Your task to perform on an android device: Open battery settings Image 0: 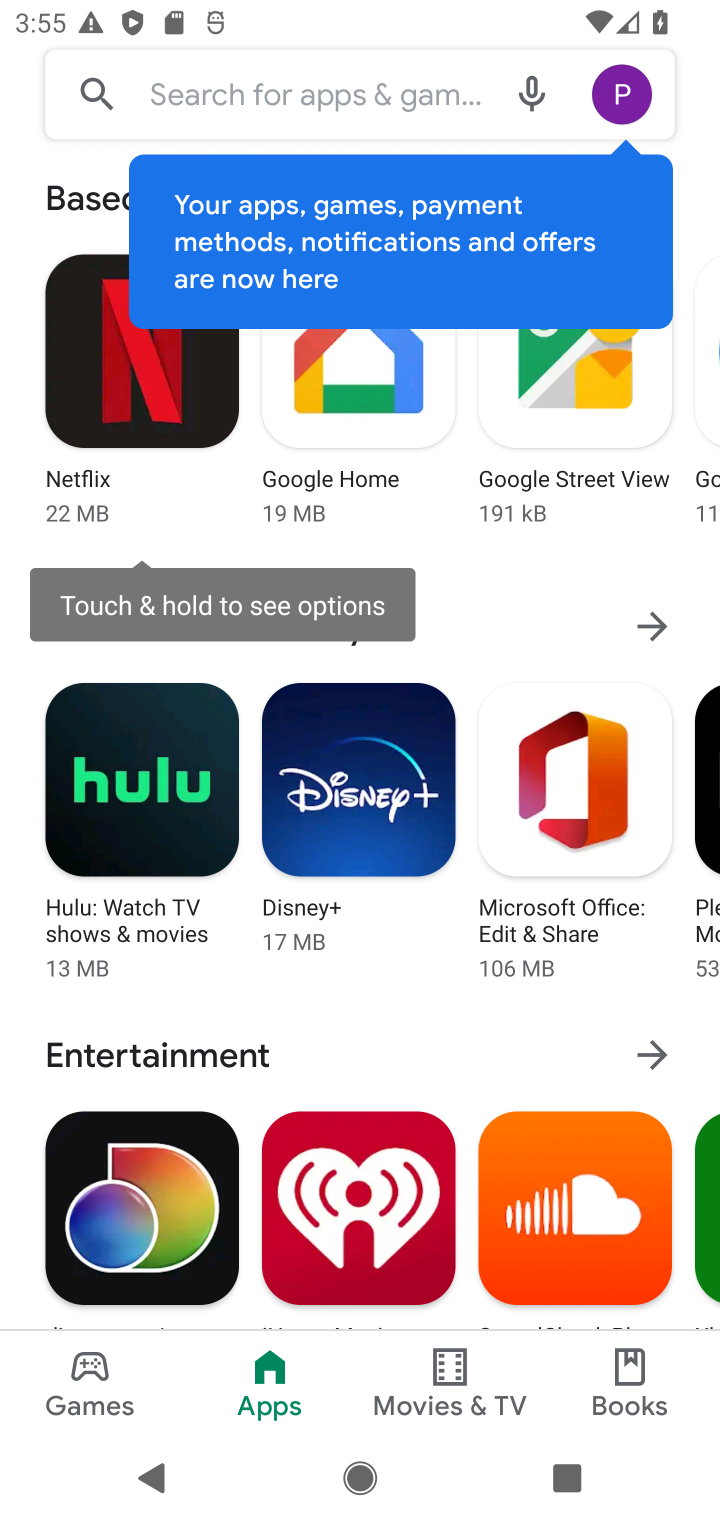
Step 0: press back button
Your task to perform on an android device: Open battery settings Image 1: 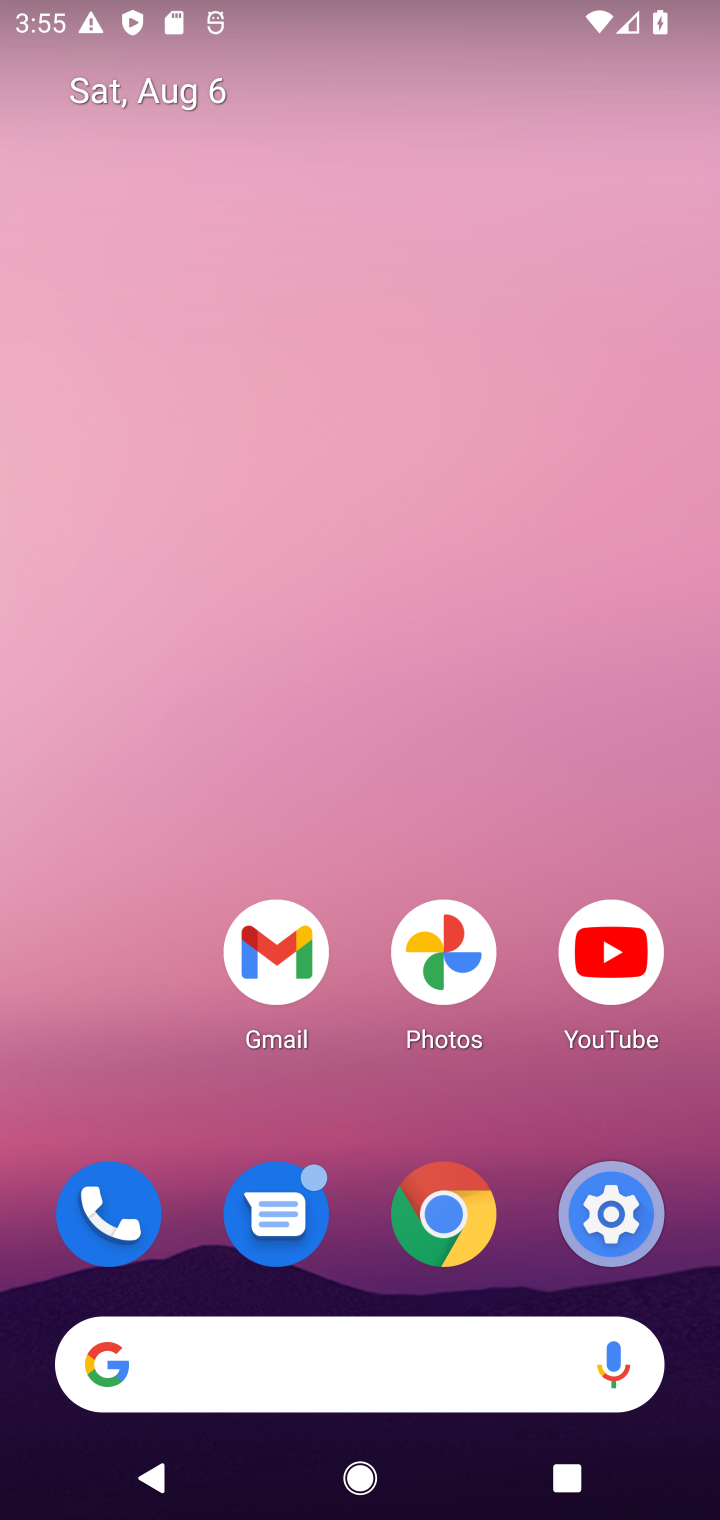
Step 1: click (612, 1226)
Your task to perform on an android device: Open battery settings Image 2: 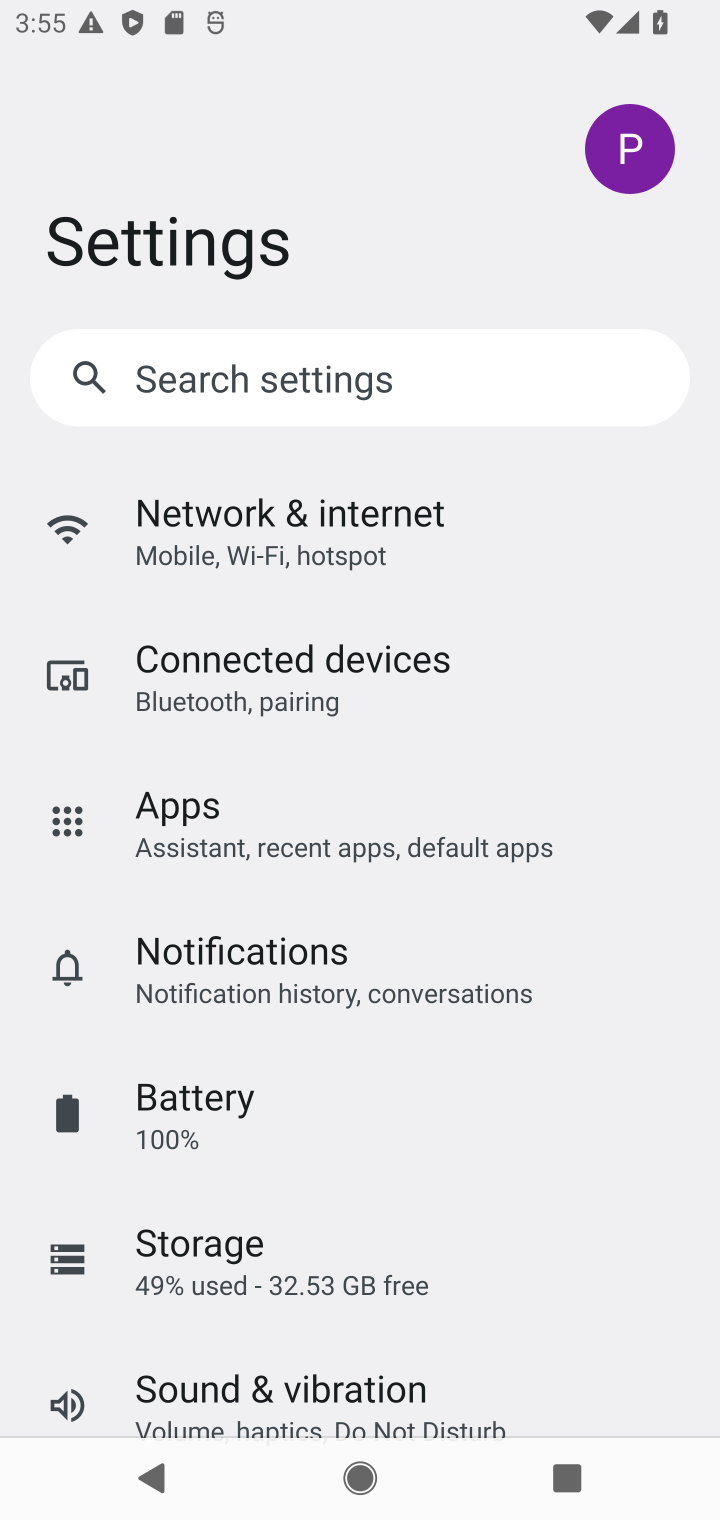
Step 2: click (212, 1126)
Your task to perform on an android device: Open battery settings Image 3: 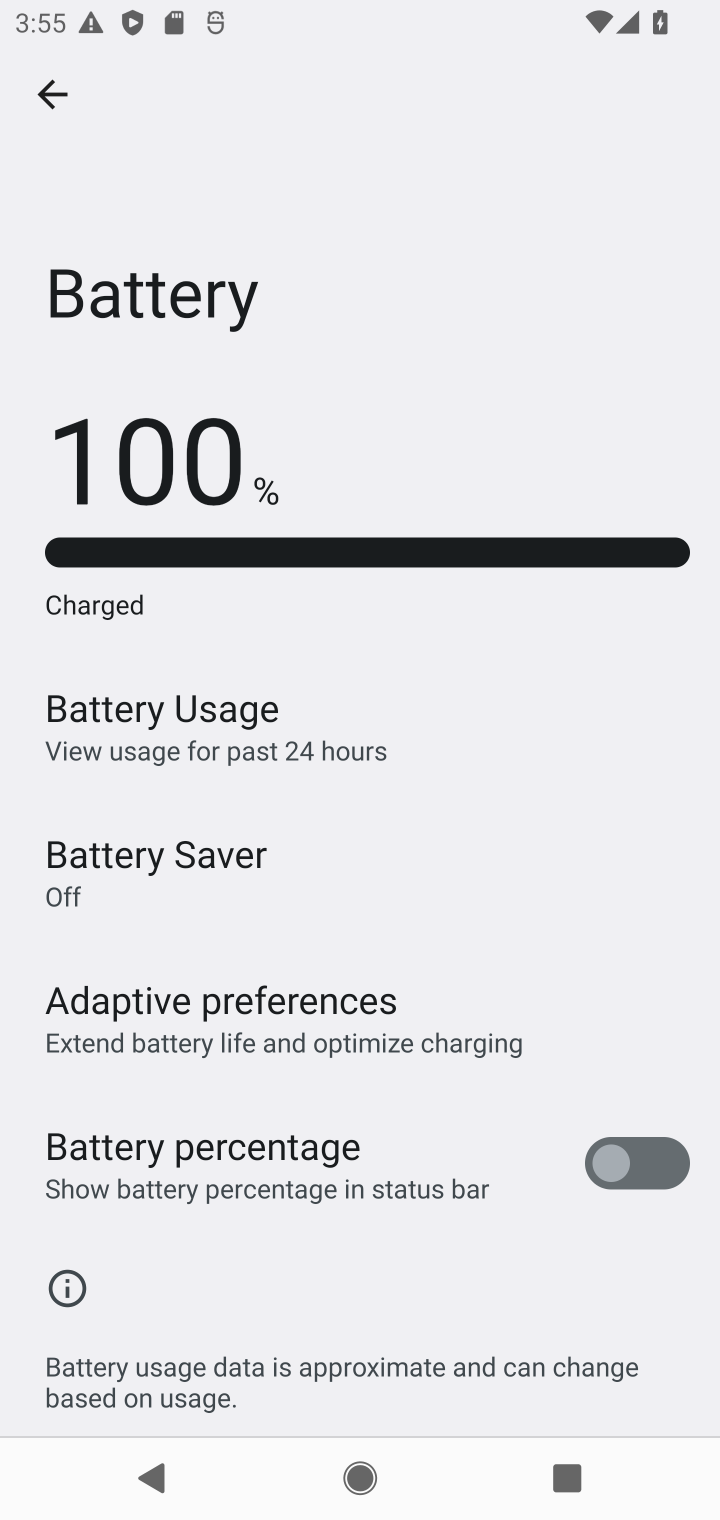
Step 3: task complete